Your task to perform on an android device: toggle data saver in the chrome app Image 0: 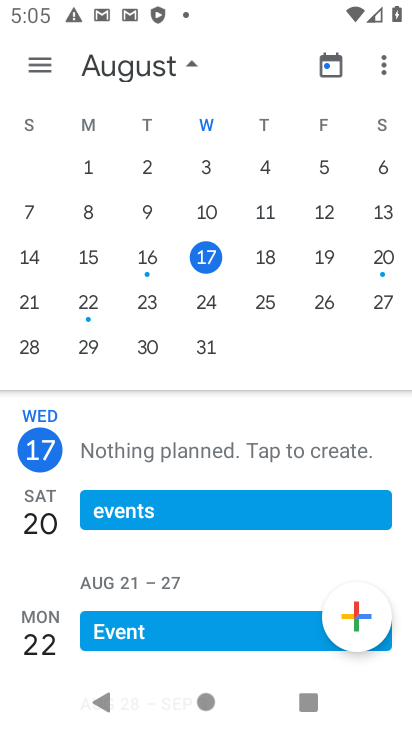
Step 0: press home button
Your task to perform on an android device: toggle data saver in the chrome app Image 1: 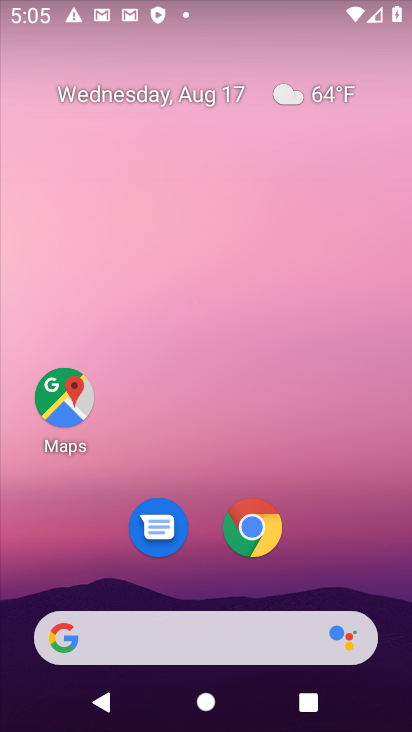
Step 1: drag from (144, 620) to (199, 94)
Your task to perform on an android device: toggle data saver in the chrome app Image 2: 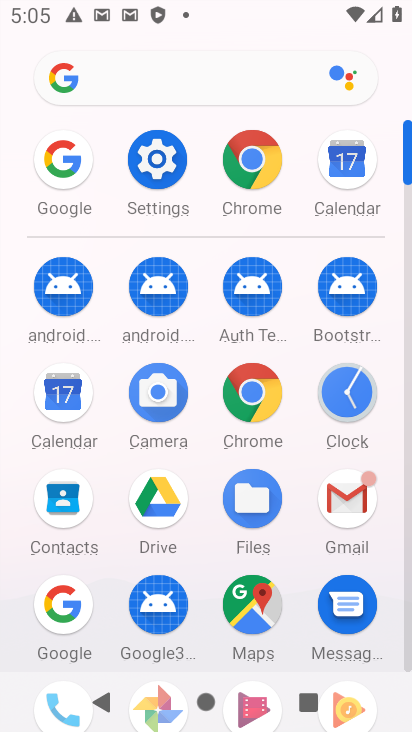
Step 2: click (249, 390)
Your task to perform on an android device: toggle data saver in the chrome app Image 3: 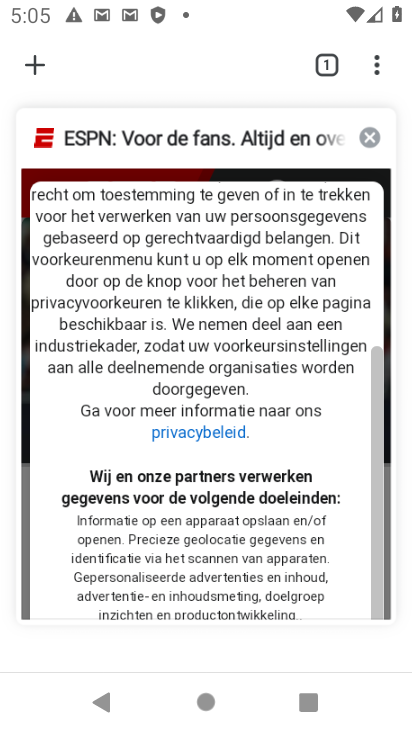
Step 3: click (374, 64)
Your task to perform on an android device: toggle data saver in the chrome app Image 4: 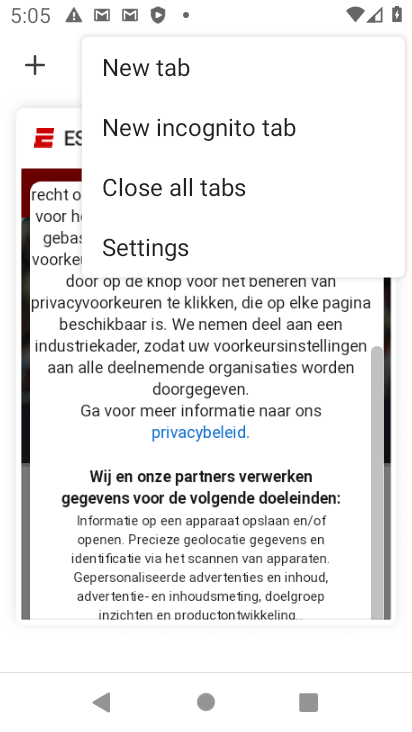
Step 4: click (142, 244)
Your task to perform on an android device: toggle data saver in the chrome app Image 5: 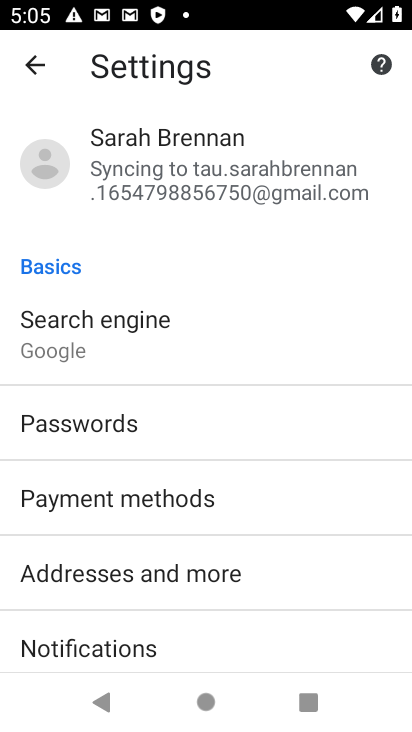
Step 5: drag from (147, 652) to (156, 213)
Your task to perform on an android device: toggle data saver in the chrome app Image 6: 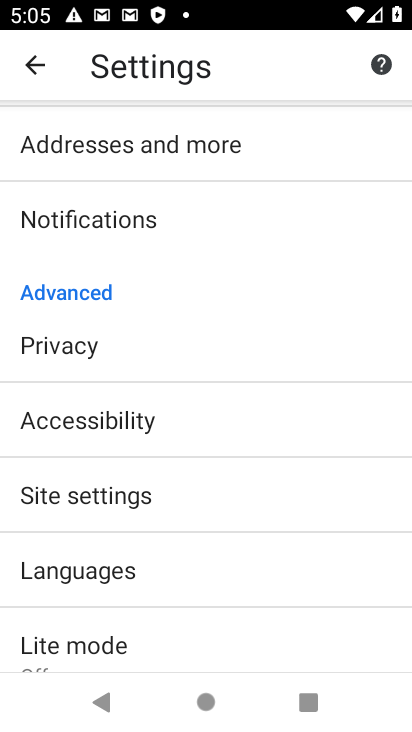
Step 6: click (63, 644)
Your task to perform on an android device: toggle data saver in the chrome app Image 7: 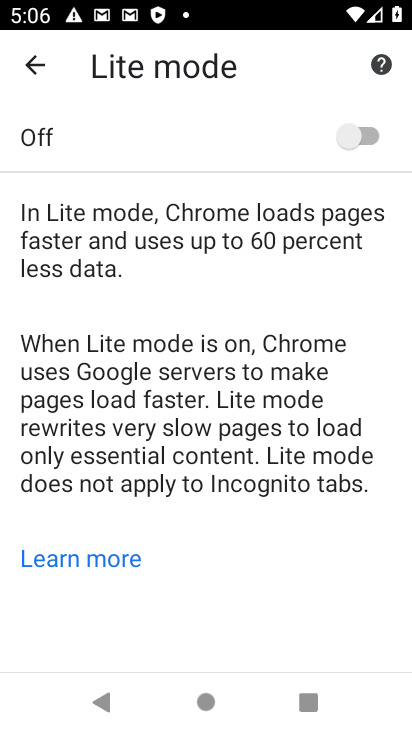
Step 7: click (352, 131)
Your task to perform on an android device: toggle data saver in the chrome app Image 8: 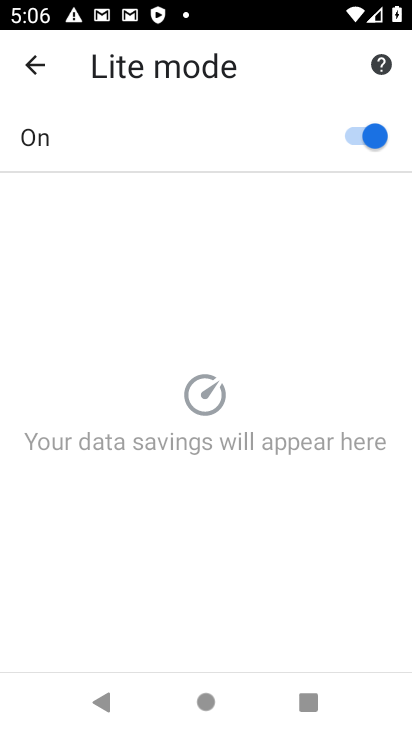
Step 8: task complete